Your task to perform on an android device: Go to Amazon Image 0: 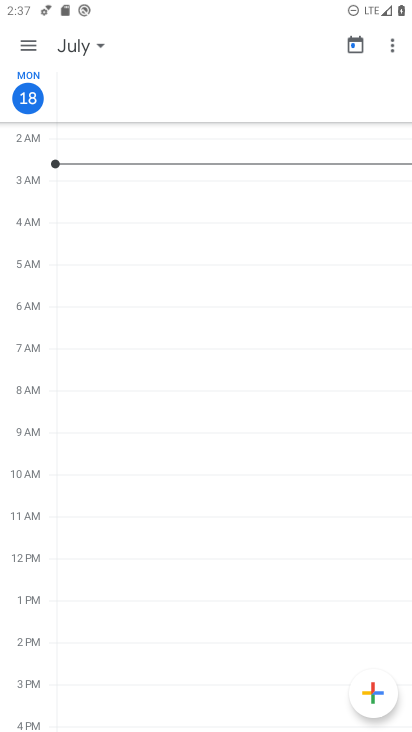
Step 0: press home button
Your task to perform on an android device: Go to Amazon Image 1: 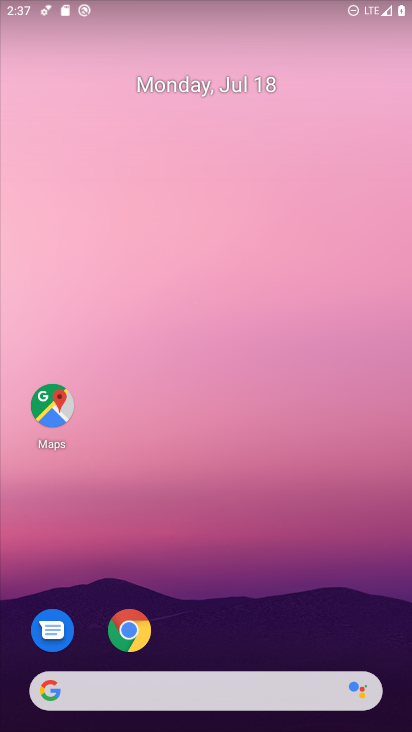
Step 1: click (38, 678)
Your task to perform on an android device: Go to Amazon Image 2: 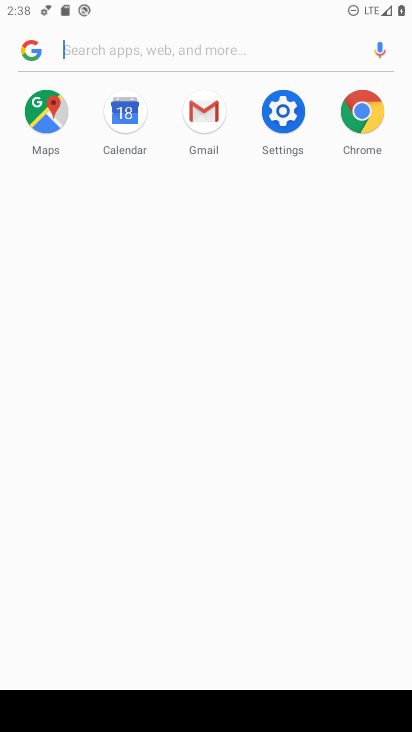
Step 2: type "Amazon"
Your task to perform on an android device: Go to Amazon Image 3: 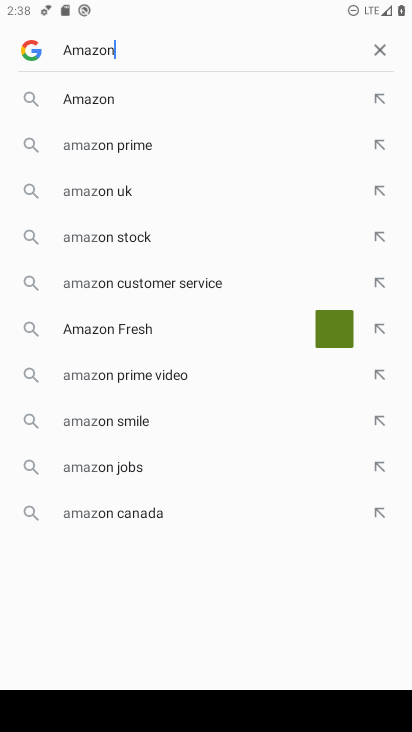
Step 3: press enter
Your task to perform on an android device: Go to Amazon Image 4: 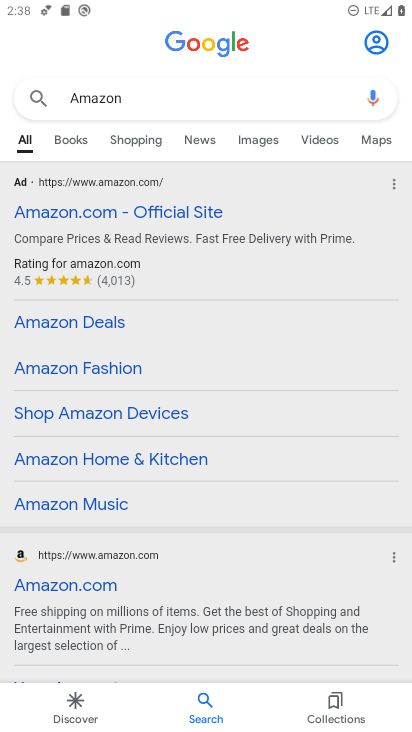
Step 4: click (90, 211)
Your task to perform on an android device: Go to Amazon Image 5: 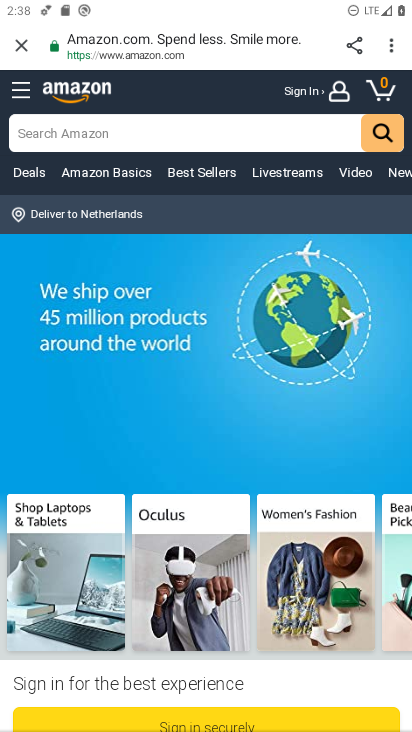
Step 5: task complete